Your task to perform on an android device: Go to eBay Image 0: 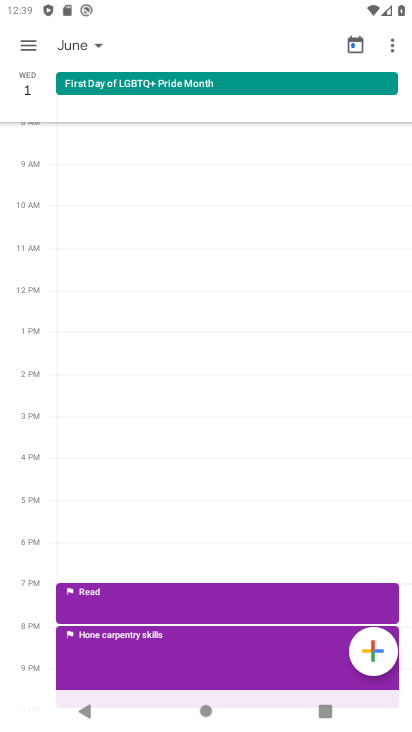
Step 0: press home button
Your task to perform on an android device: Go to eBay Image 1: 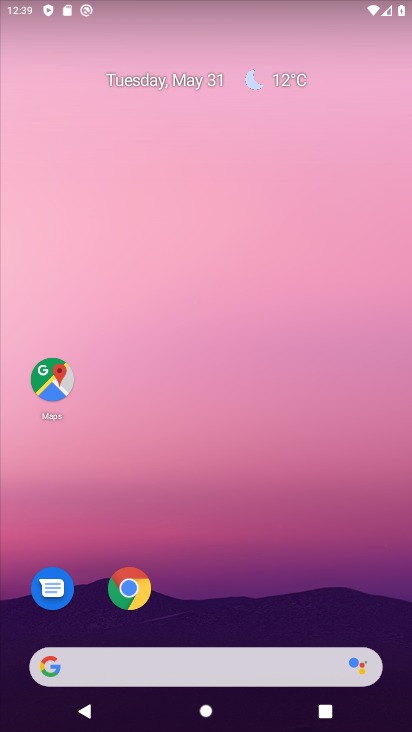
Step 1: click (142, 584)
Your task to perform on an android device: Go to eBay Image 2: 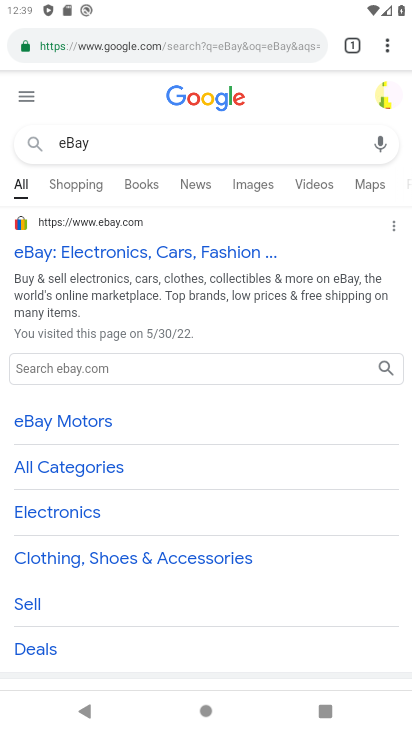
Step 2: click (317, 45)
Your task to perform on an android device: Go to eBay Image 3: 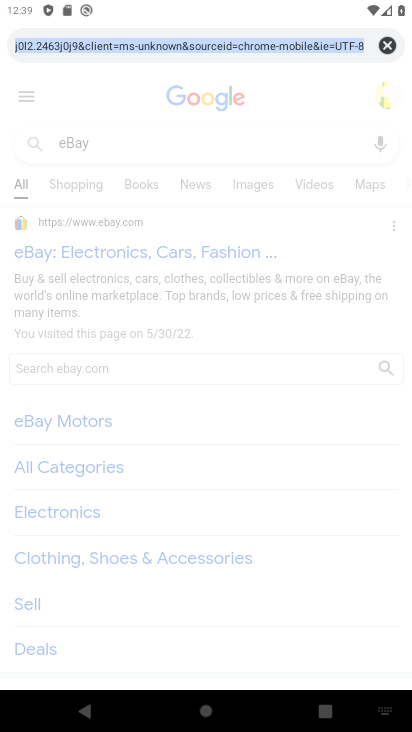
Step 3: click (387, 34)
Your task to perform on an android device: Go to eBay Image 4: 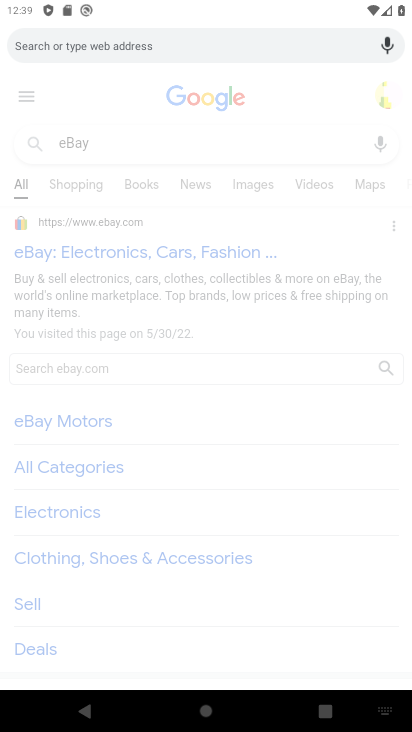
Step 4: type "eBay"
Your task to perform on an android device: Go to eBay Image 5: 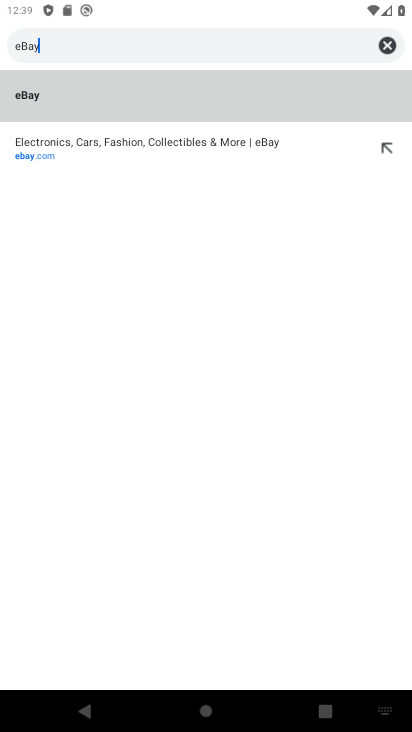
Step 5: click (73, 104)
Your task to perform on an android device: Go to eBay Image 6: 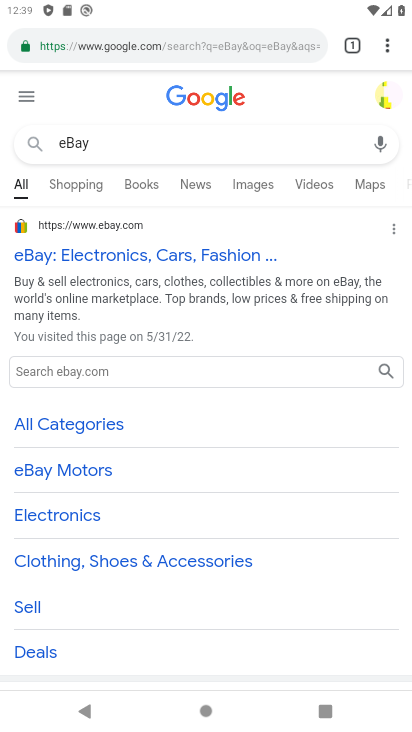
Step 6: task complete